Your task to perform on an android device: allow notifications from all sites in the chrome app Image 0: 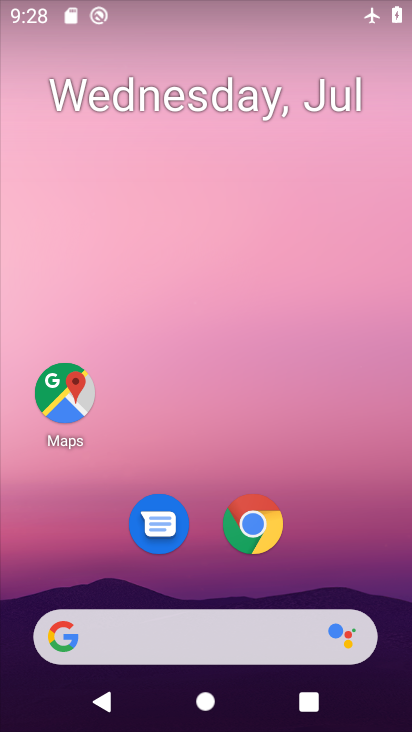
Step 0: click (257, 522)
Your task to perform on an android device: allow notifications from all sites in the chrome app Image 1: 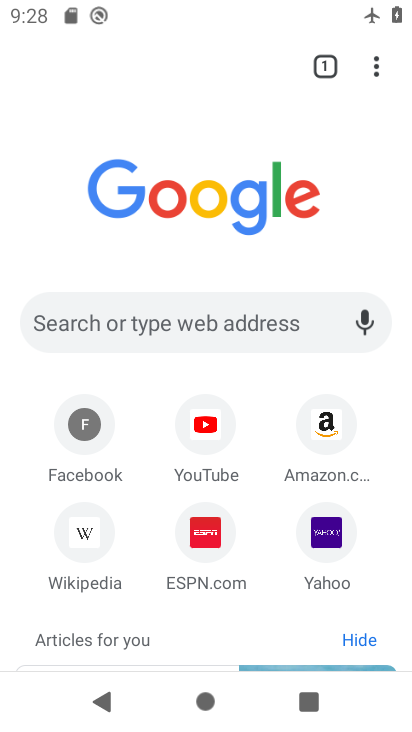
Step 1: click (375, 68)
Your task to perform on an android device: allow notifications from all sites in the chrome app Image 2: 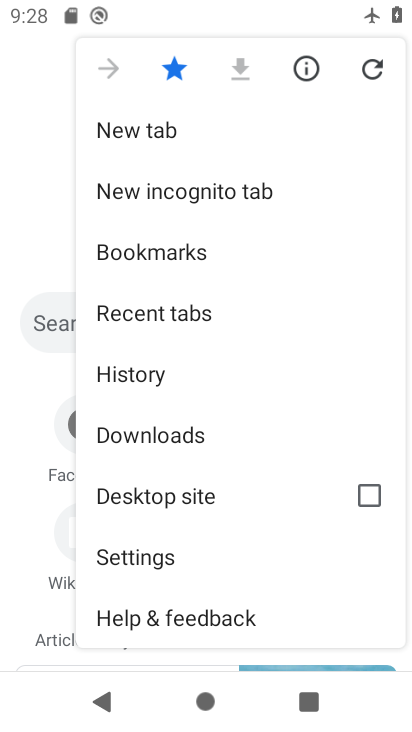
Step 2: click (170, 558)
Your task to perform on an android device: allow notifications from all sites in the chrome app Image 3: 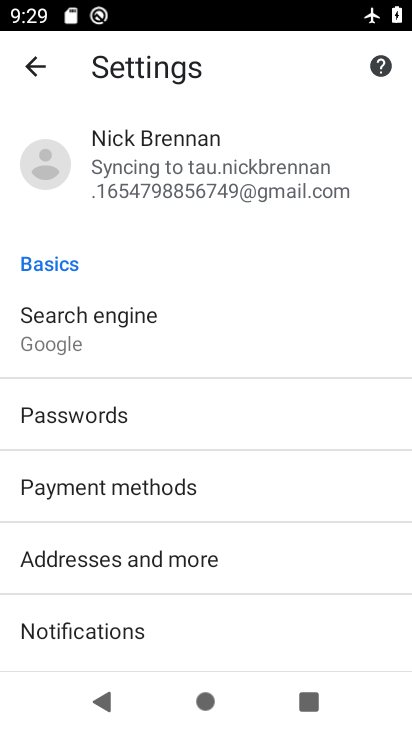
Step 3: click (134, 627)
Your task to perform on an android device: allow notifications from all sites in the chrome app Image 4: 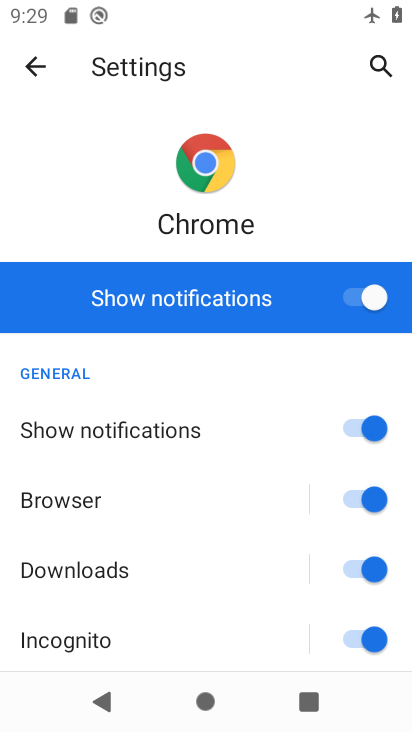
Step 4: task complete